Your task to perform on an android device: turn on showing notifications on the lock screen Image 0: 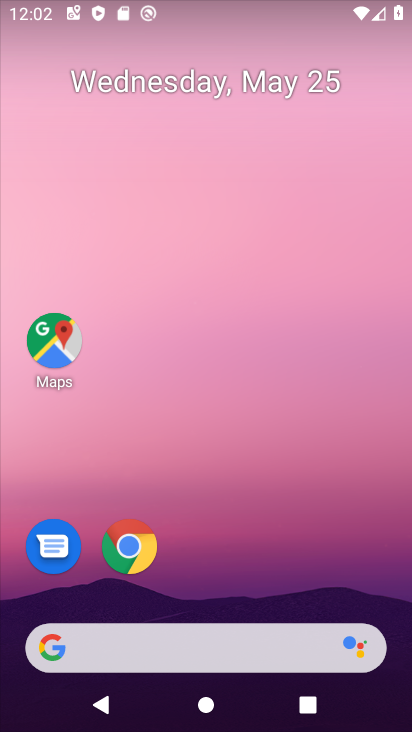
Step 0: drag from (212, 602) to (196, 132)
Your task to perform on an android device: turn on showing notifications on the lock screen Image 1: 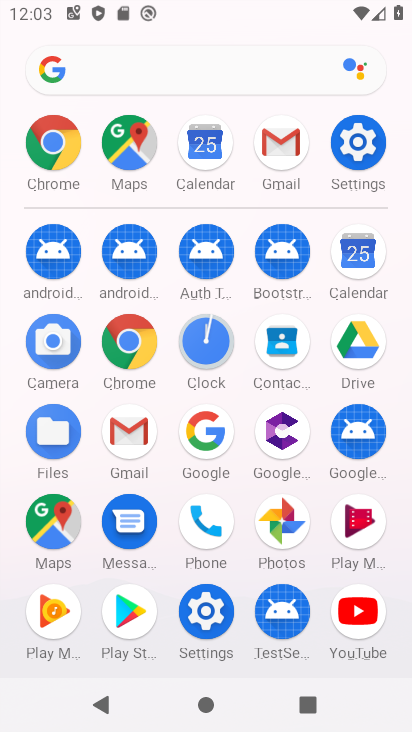
Step 1: click (359, 162)
Your task to perform on an android device: turn on showing notifications on the lock screen Image 2: 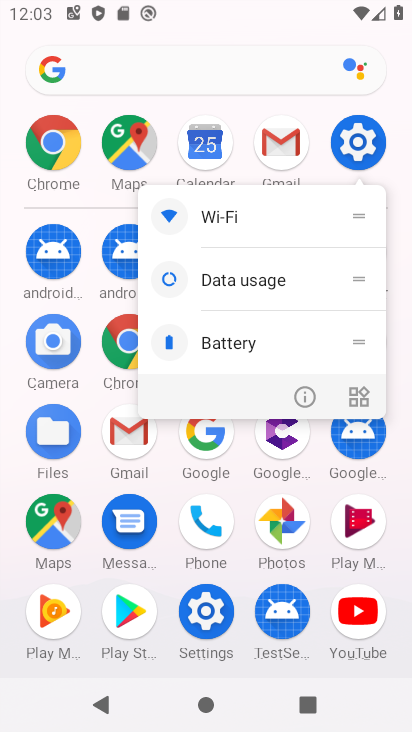
Step 2: click (359, 162)
Your task to perform on an android device: turn on showing notifications on the lock screen Image 3: 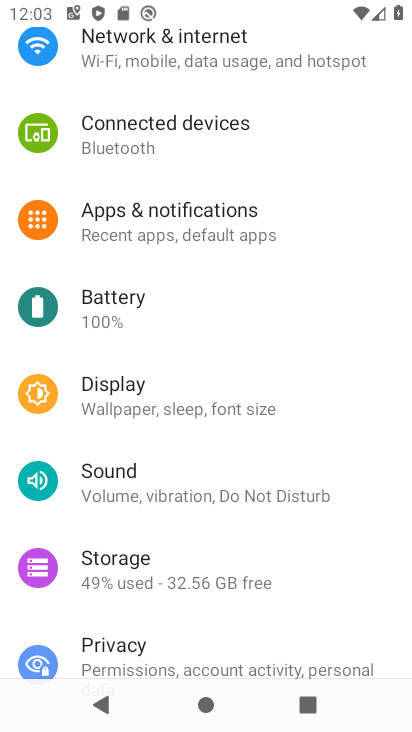
Step 3: click (246, 214)
Your task to perform on an android device: turn on showing notifications on the lock screen Image 4: 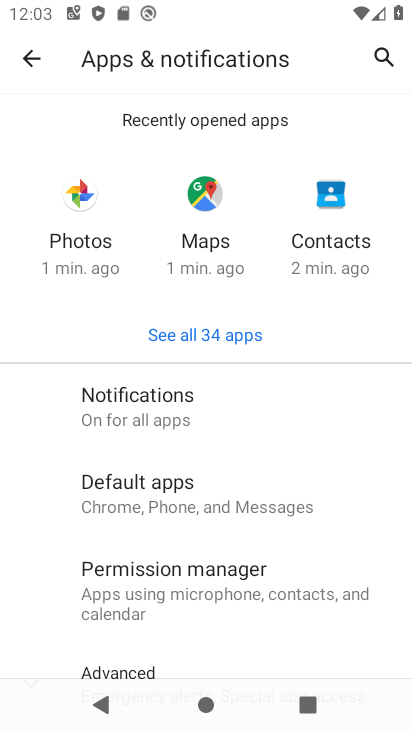
Step 4: click (261, 393)
Your task to perform on an android device: turn on showing notifications on the lock screen Image 5: 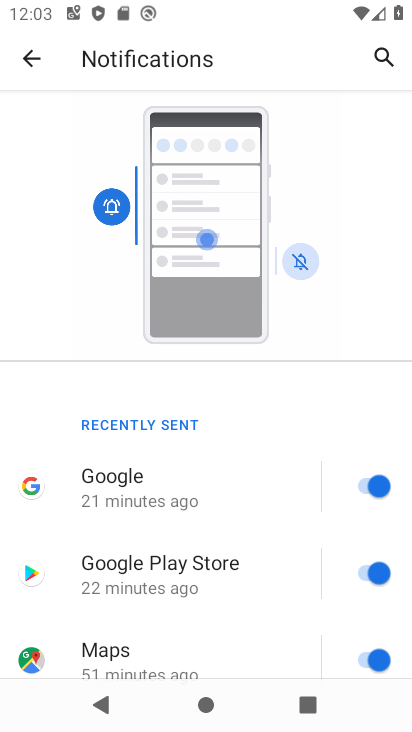
Step 5: drag from (265, 649) to (165, 8)
Your task to perform on an android device: turn on showing notifications on the lock screen Image 6: 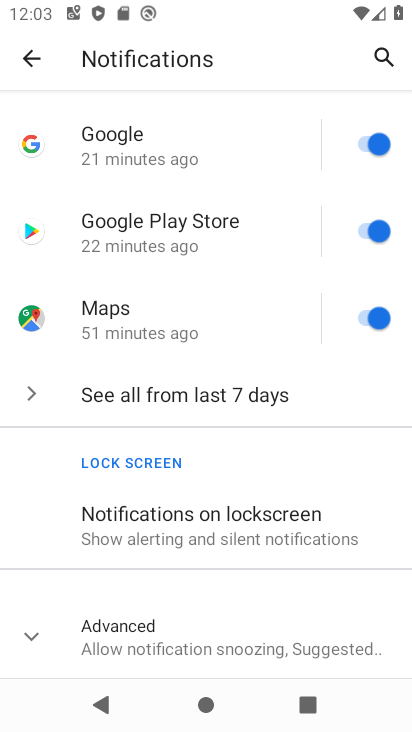
Step 6: click (237, 510)
Your task to perform on an android device: turn on showing notifications on the lock screen Image 7: 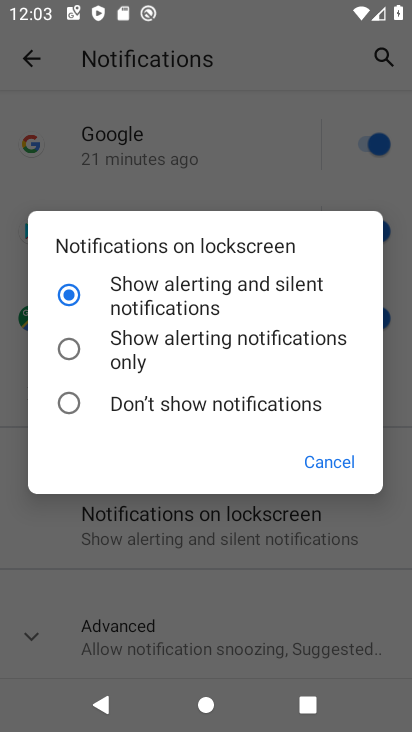
Step 7: task complete